Your task to perform on an android device: uninstall "ZOOM Cloud Meetings" Image 0: 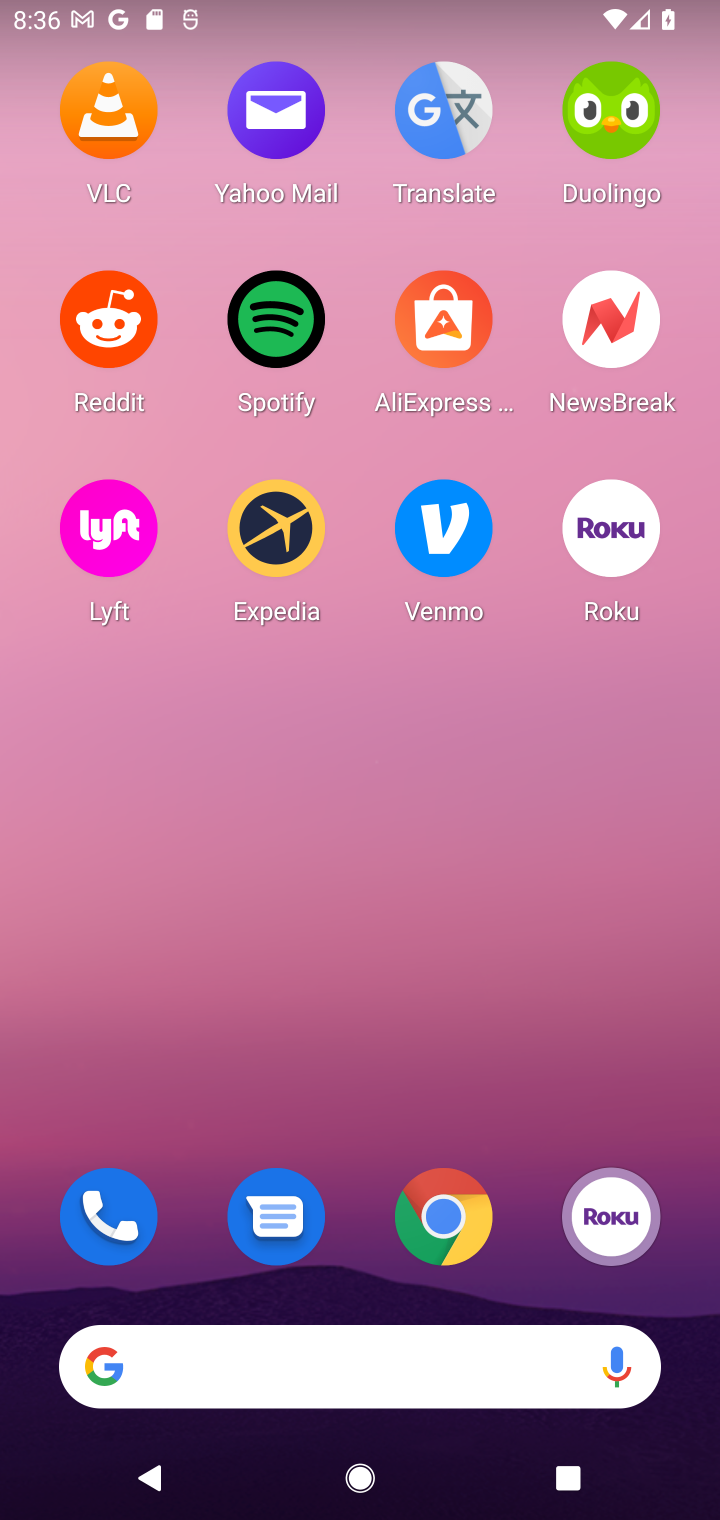
Step 0: press home button
Your task to perform on an android device: uninstall "ZOOM Cloud Meetings" Image 1: 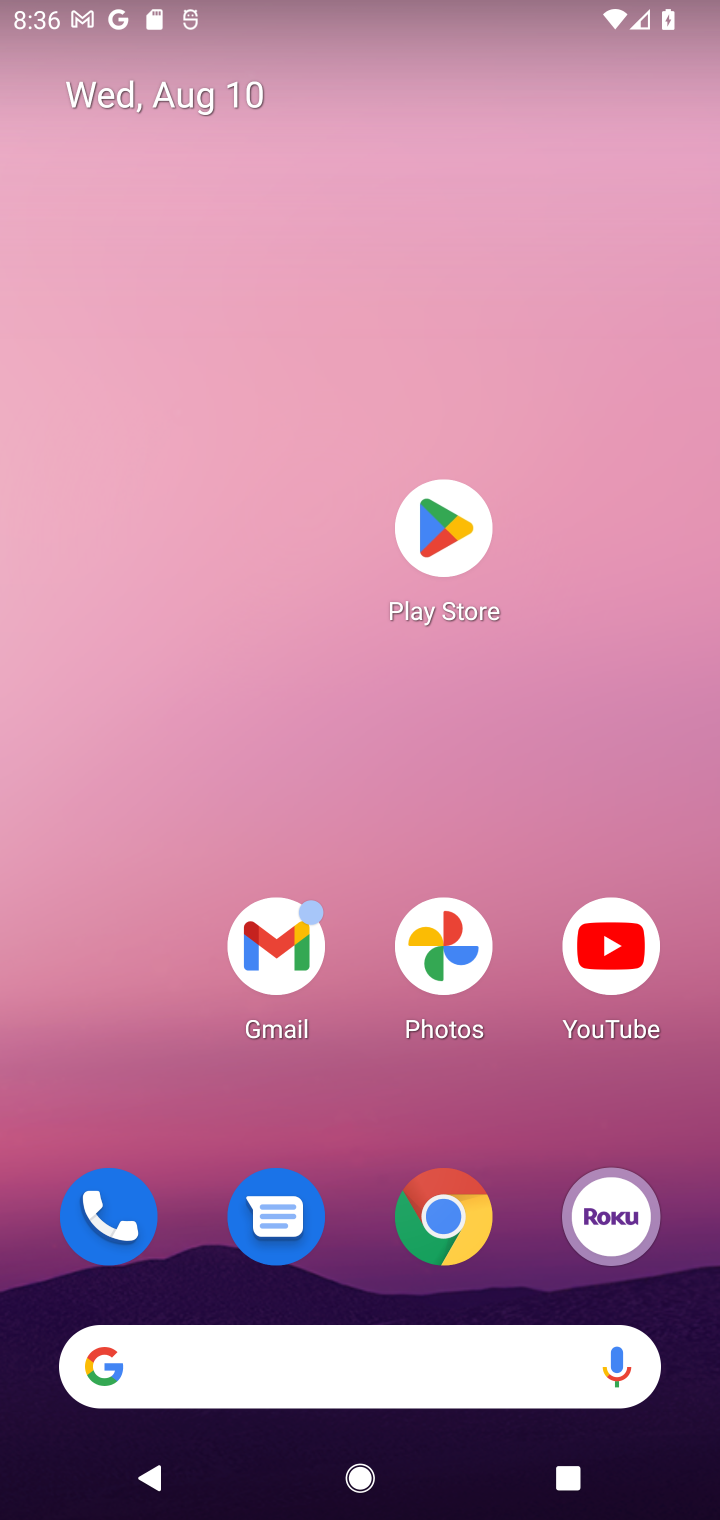
Step 1: click (439, 535)
Your task to perform on an android device: uninstall "ZOOM Cloud Meetings" Image 2: 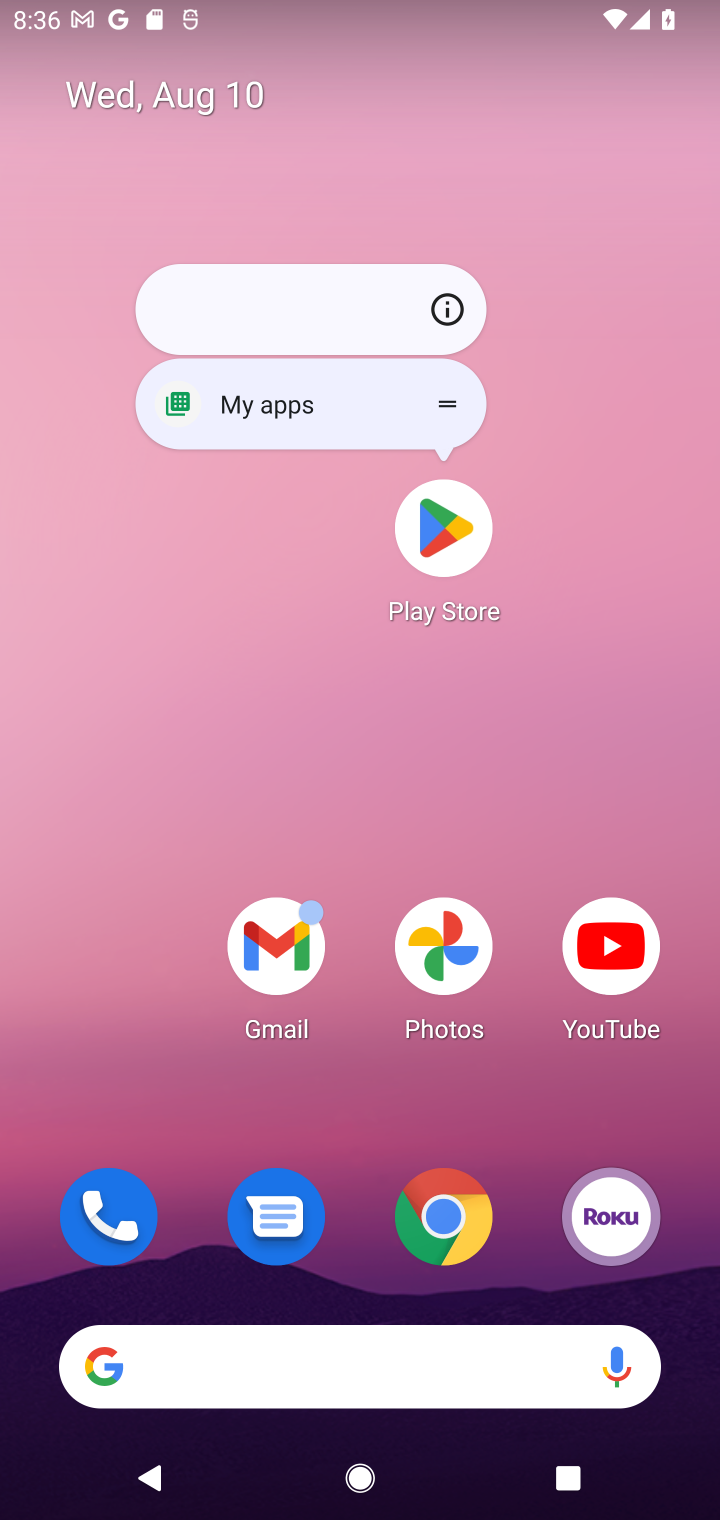
Step 2: click (439, 537)
Your task to perform on an android device: uninstall "ZOOM Cloud Meetings" Image 3: 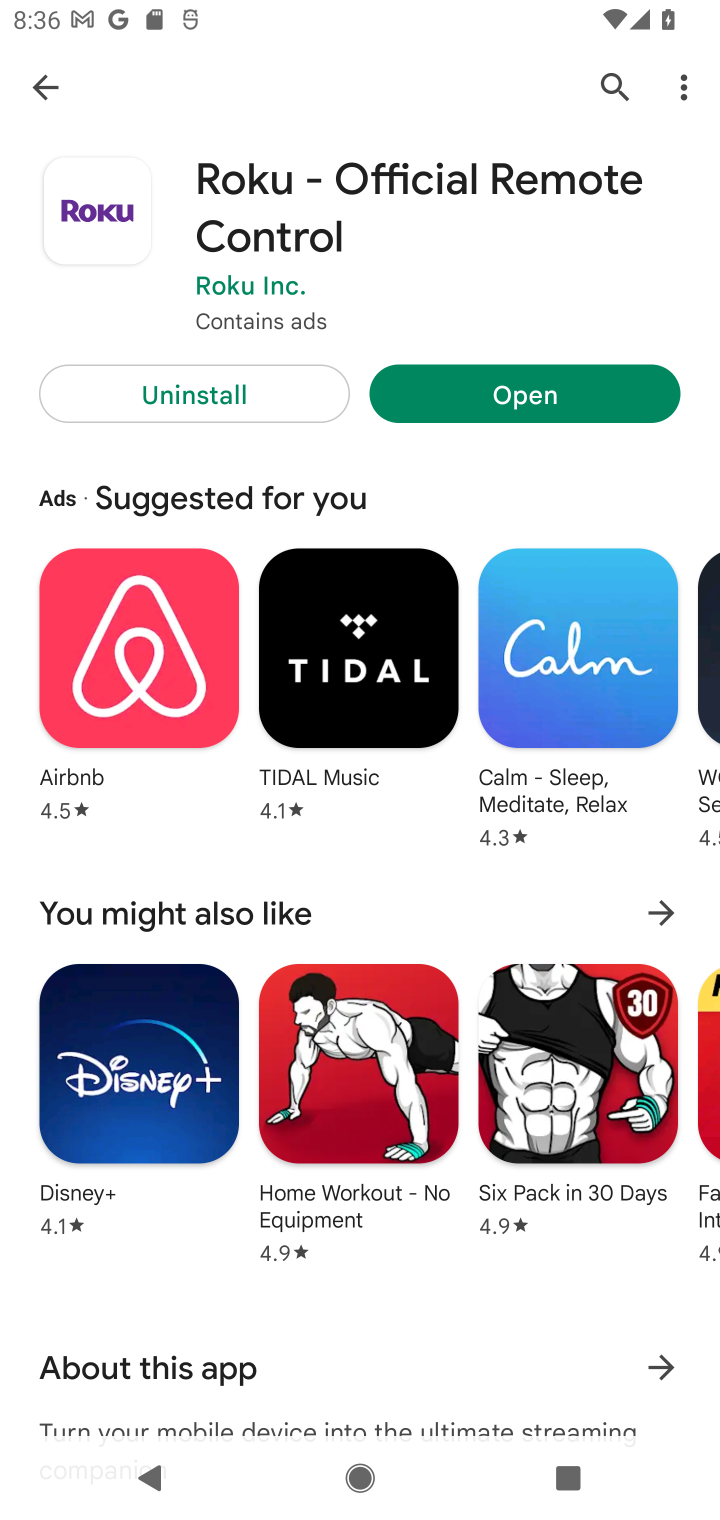
Step 3: click (601, 87)
Your task to perform on an android device: uninstall "ZOOM Cloud Meetings" Image 4: 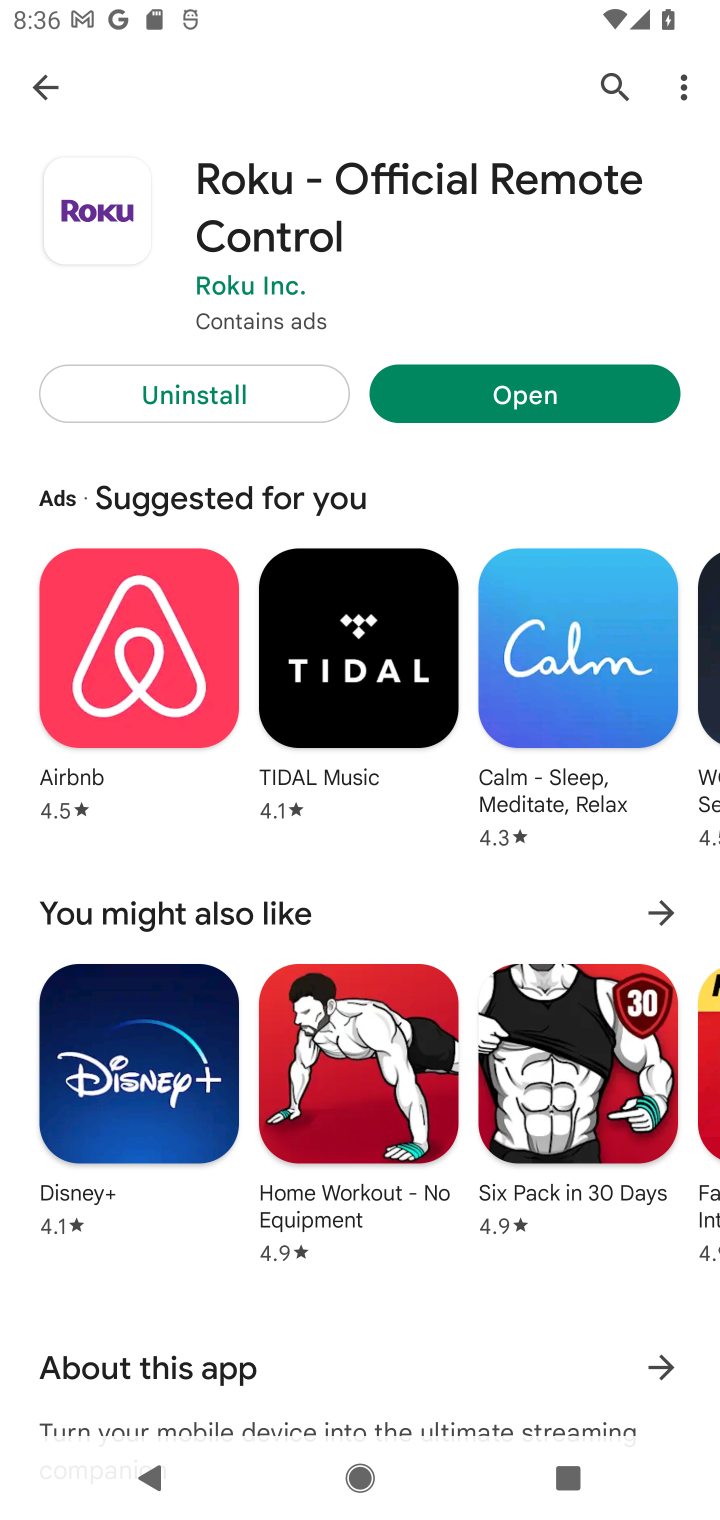
Step 4: click (607, 71)
Your task to perform on an android device: uninstall "ZOOM Cloud Meetings" Image 5: 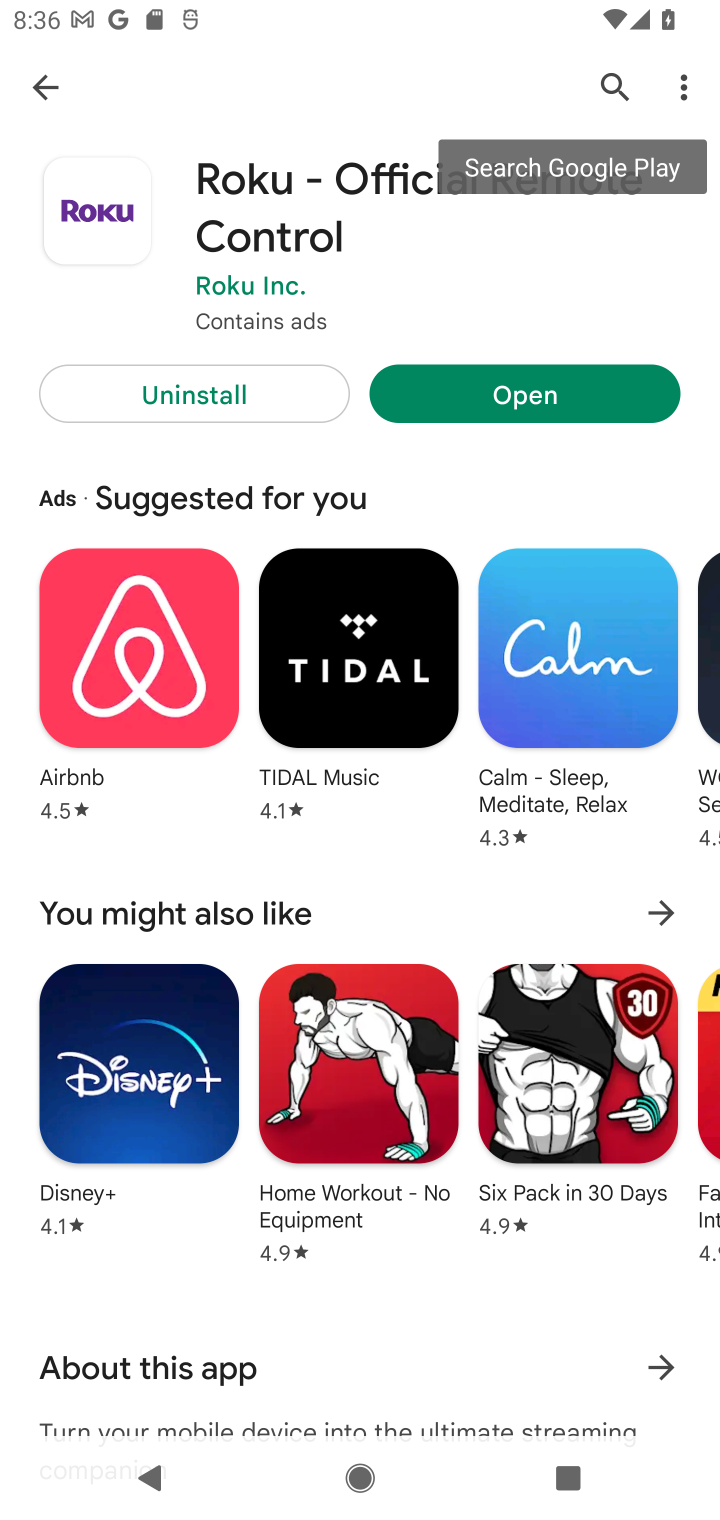
Step 5: click (611, 91)
Your task to perform on an android device: uninstall "ZOOM Cloud Meetings" Image 6: 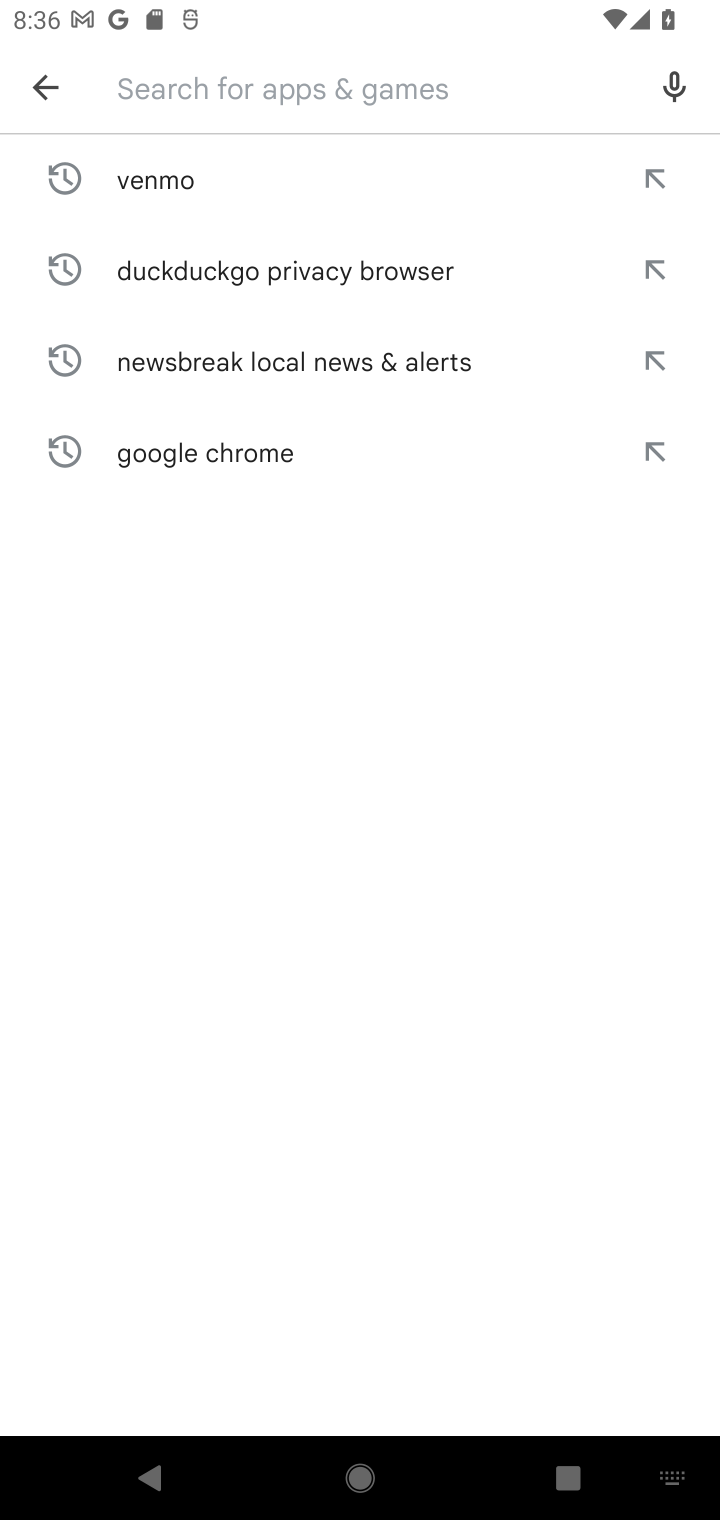
Step 6: type "ZOOM Cloud Meetings"
Your task to perform on an android device: uninstall "ZOOM Cloud Meetings" Image 7: 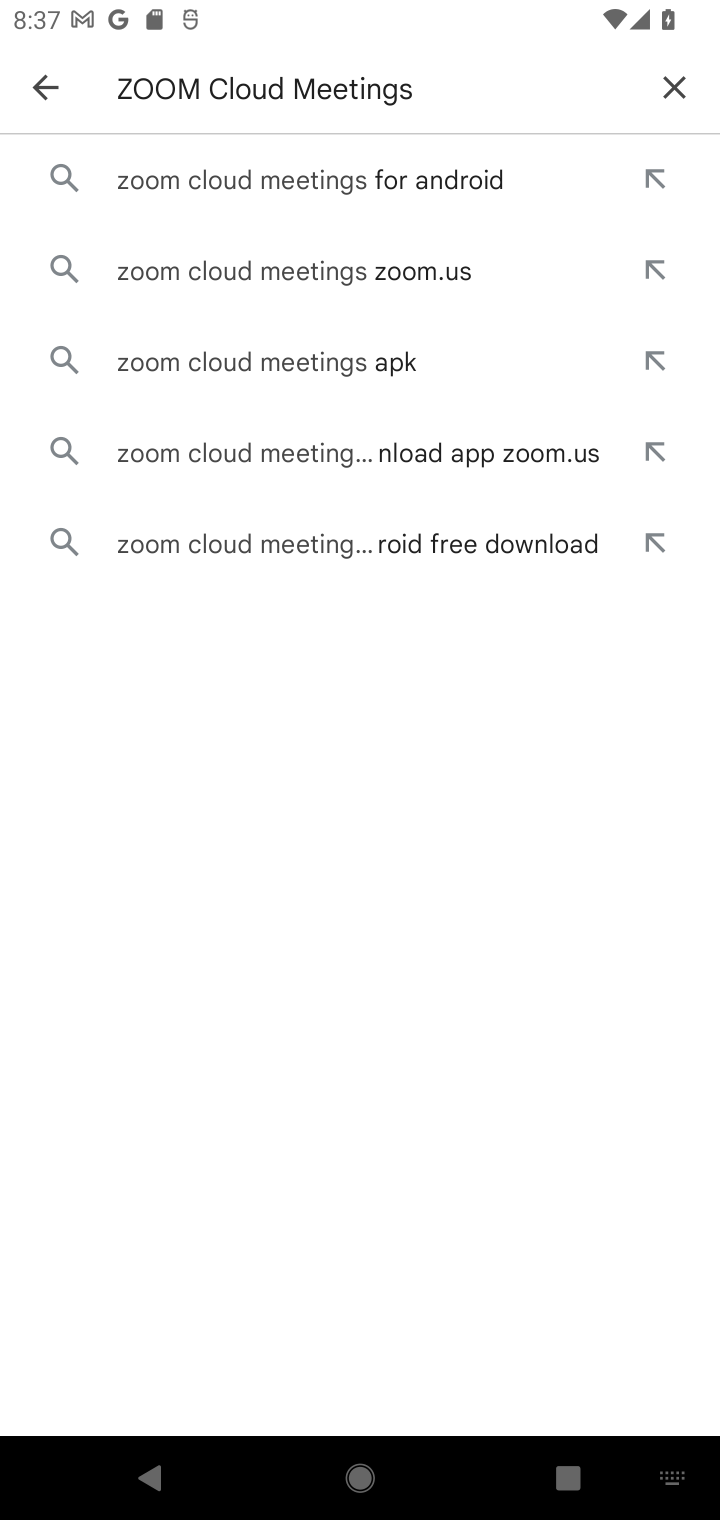
Step 7: click (373, 189)
Your task to perform on an android device: uninstall "ZOOM Cloud Meetings" Image 8: 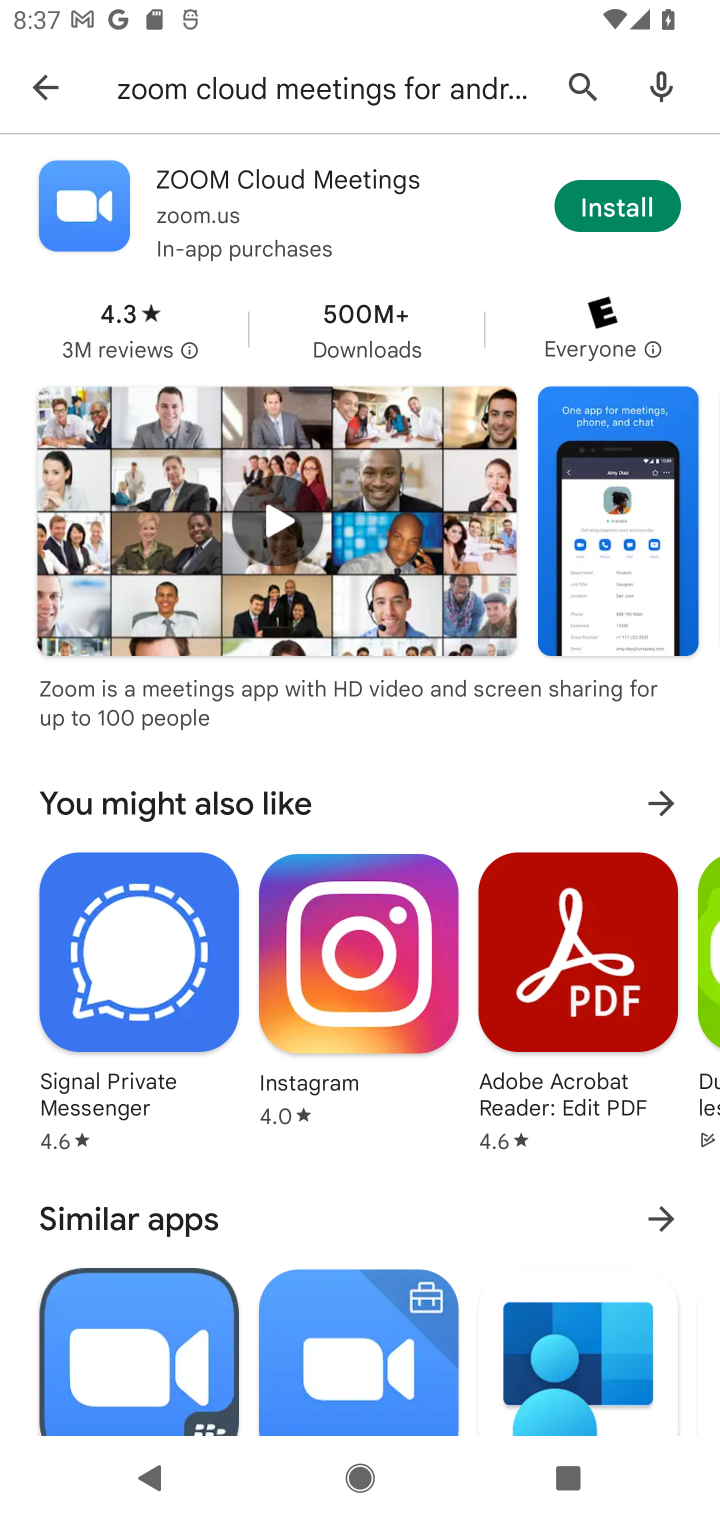
Step 8: task complete